Your task to perform on an android device: What's the weather? Image 0: 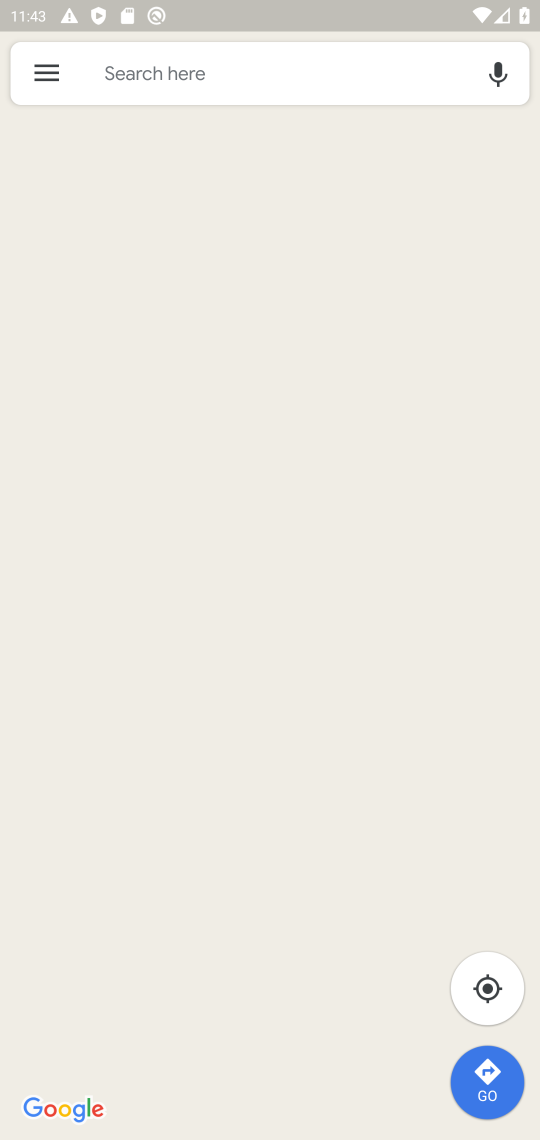
Step 0: click (279, 452)
Your task to perform on an android device: What's the weather? Image 1: 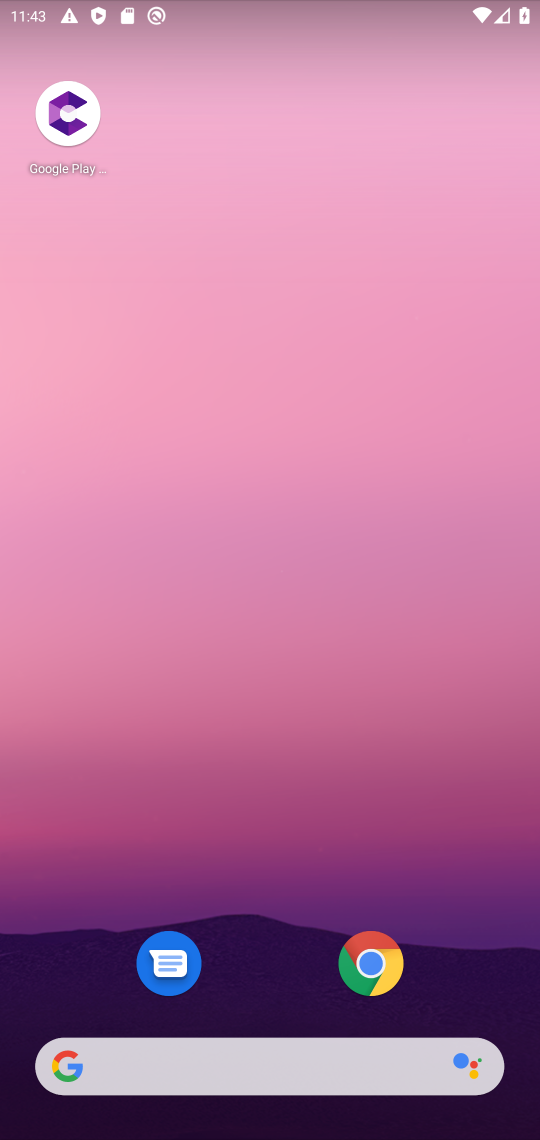
Step 1: drag from (303, 1014) to (297, 231)
Your task to perform on an android device: What's the weather? Image 2: 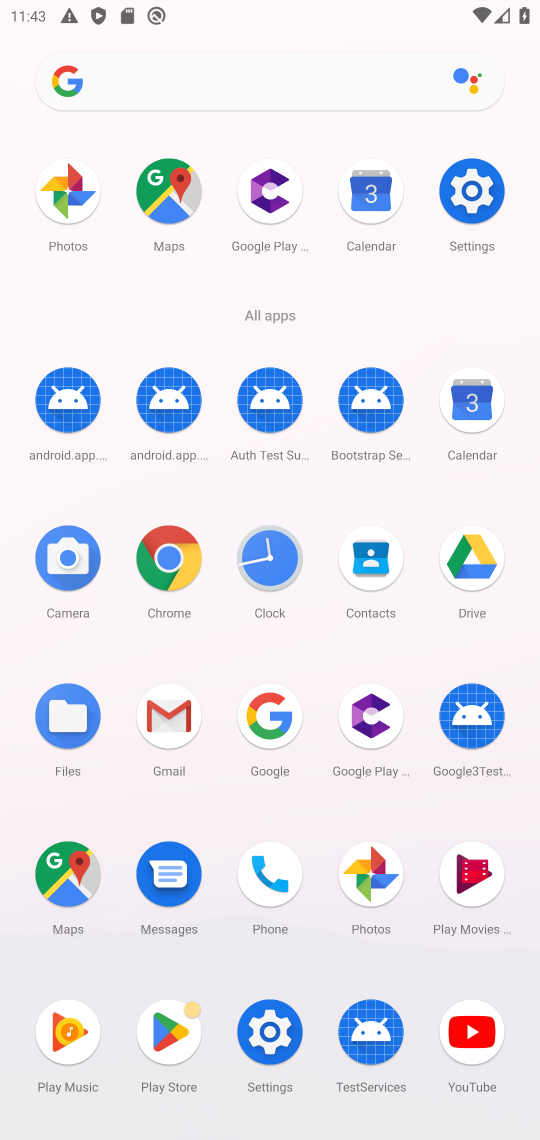
Step 2: click (167, 561)
Your task to perform on an android device: What's the weather? Image 3: 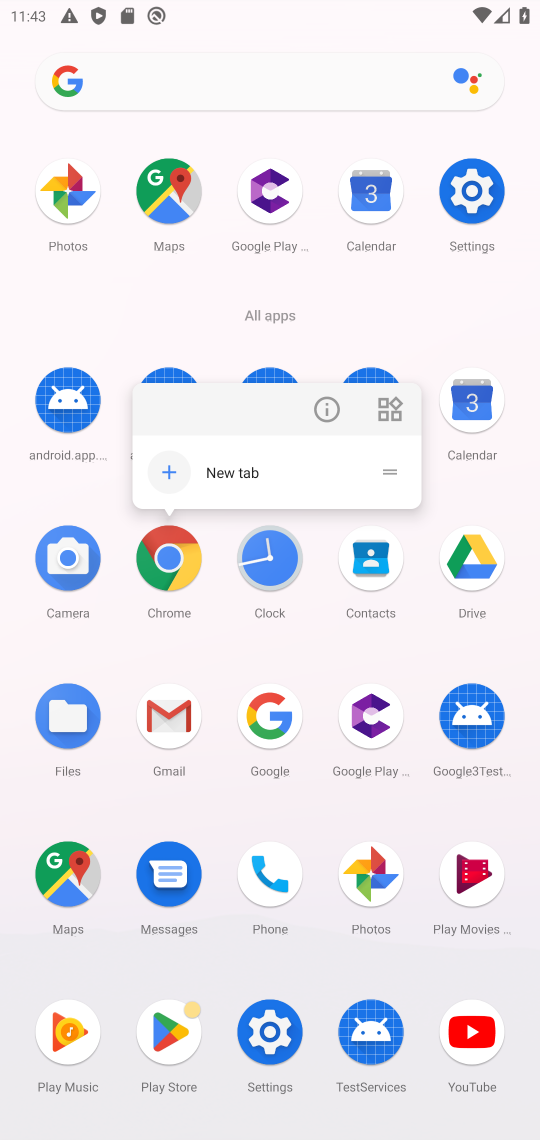
Step 3: click (167, 561)
Your task to perform on an android device: What's the weather? Image 4: 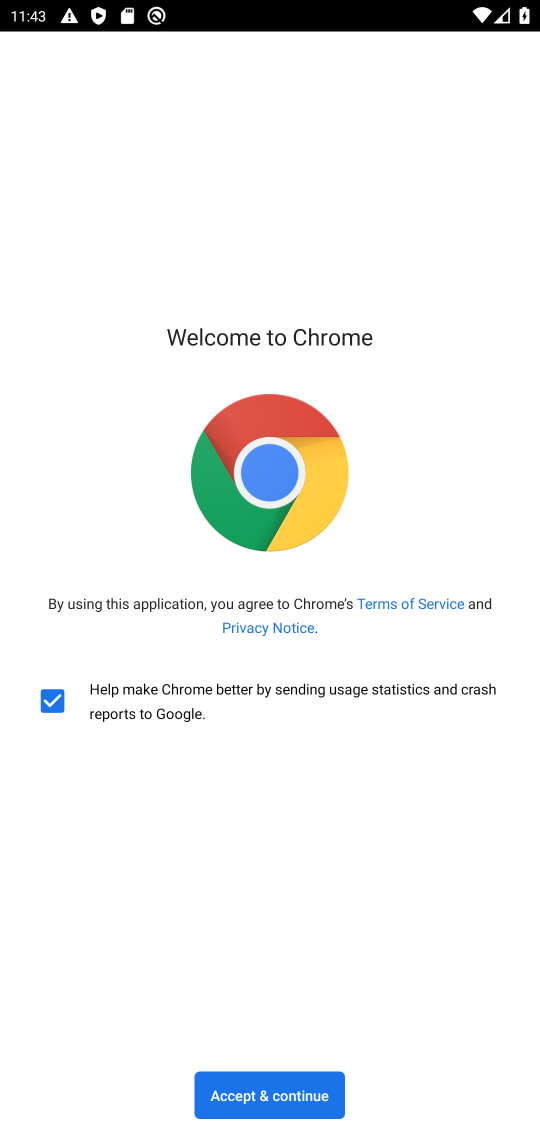
Step 4: click (272, 1091)
Your task to perform on an android device: What's the weather? Image 5: 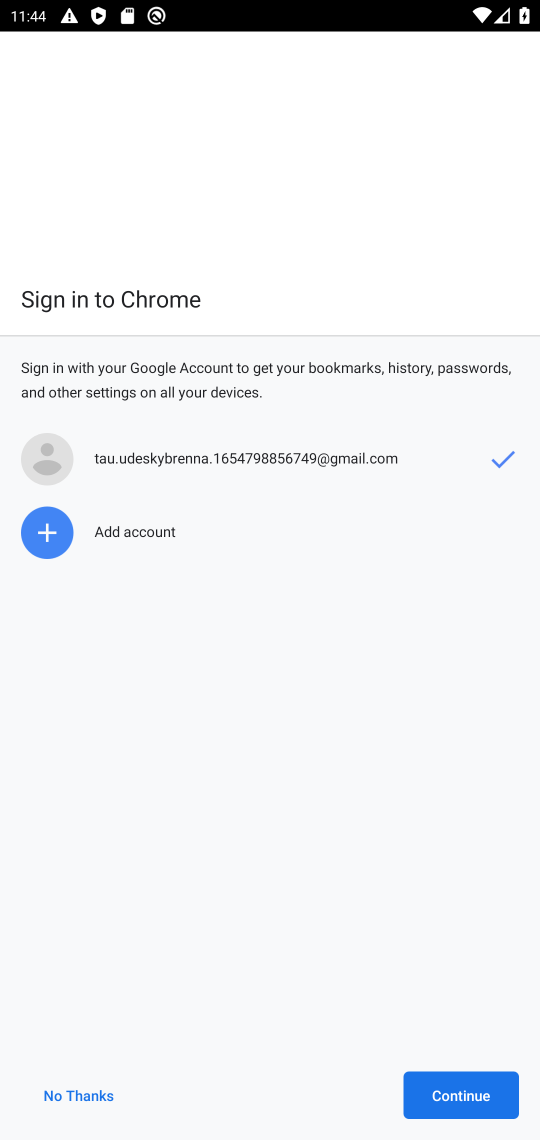
Step 5: click (455, 1080)
Your task to perform on an android device: What's the weather? Image 6: 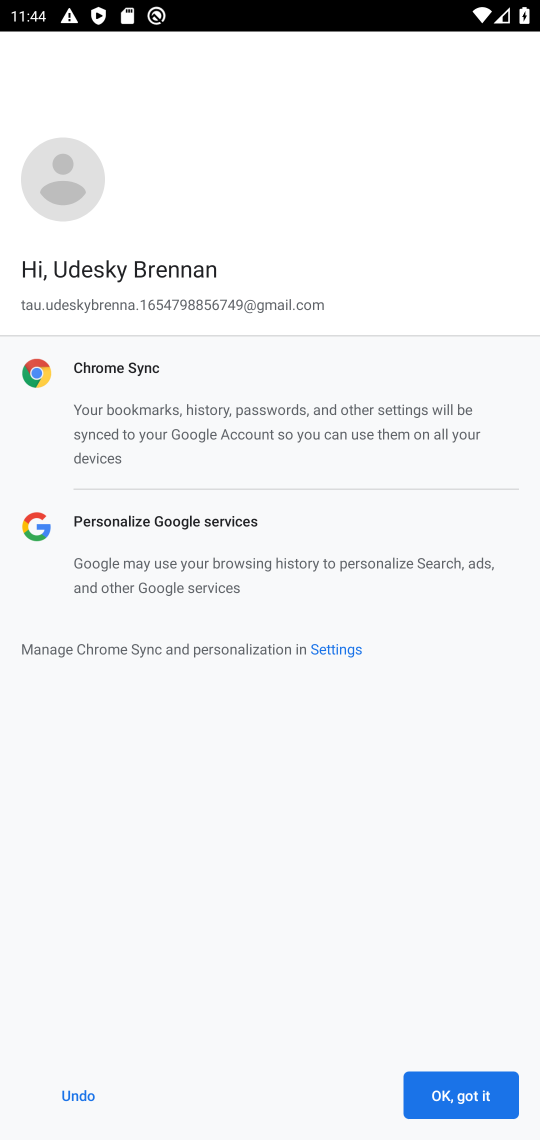
Step 6: click (455, 1084)
Your task to perform on an android device: What's the weather? Image 7: 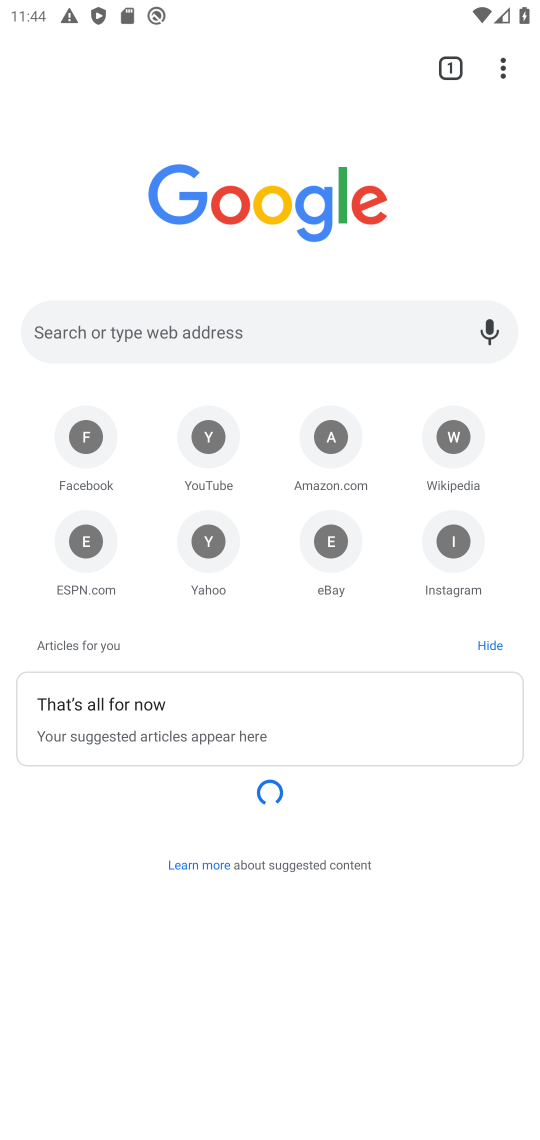
Step 7: click (305, 323)
Your task to perform on an android device: What's the weather? Image 8: 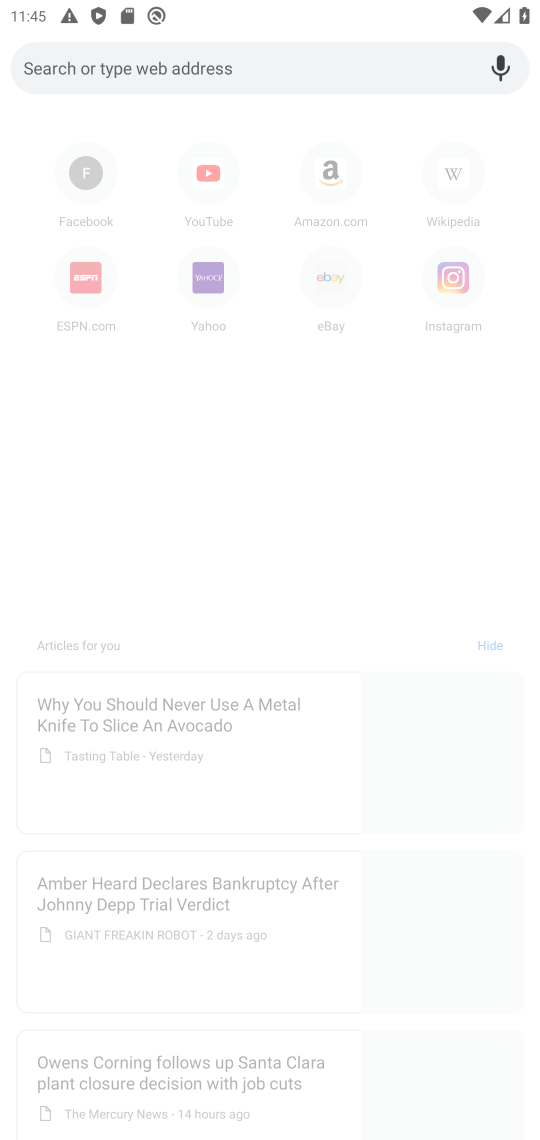
Step 8: type "What's the weather? "
Your task to perform on an android device: What's the weather? Image 9: 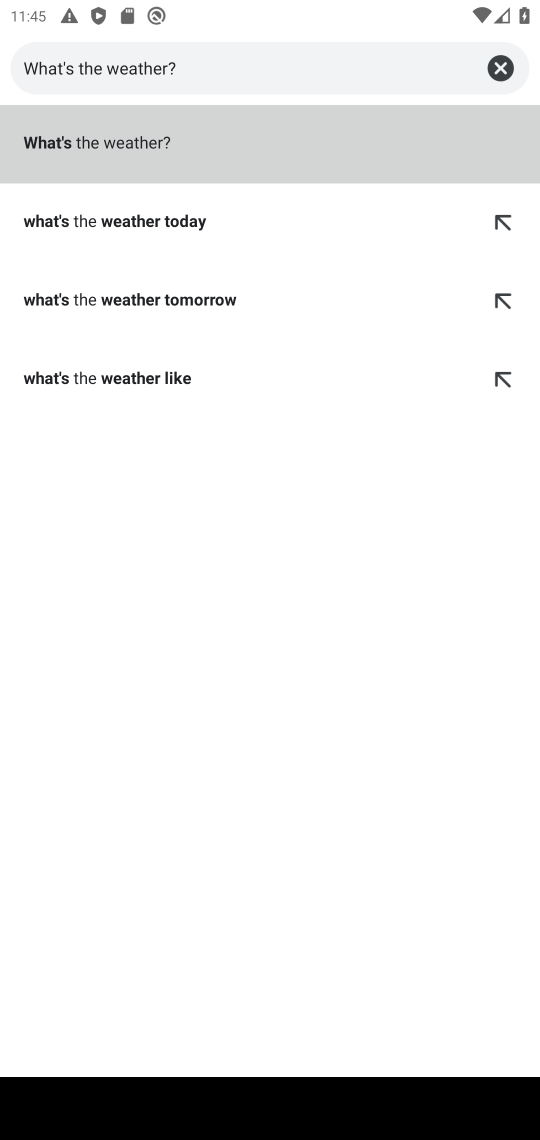
Step 9: click (155, 145)
Your task to perform on an android device: What's the weather? Image 10: 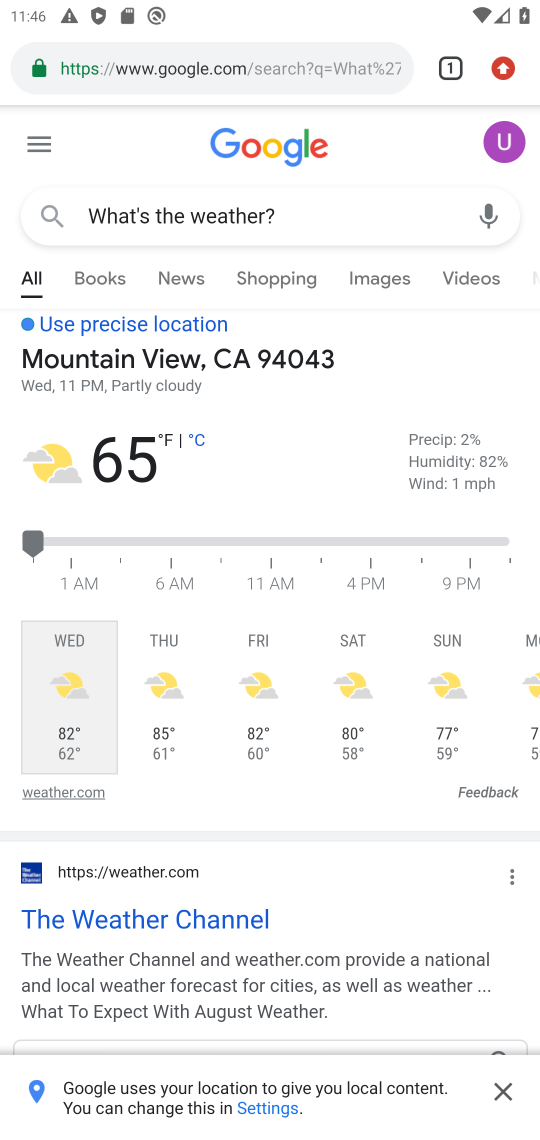
Step 10: task complete